Your task to perform on an android device: turn on sleep mode Image 0: 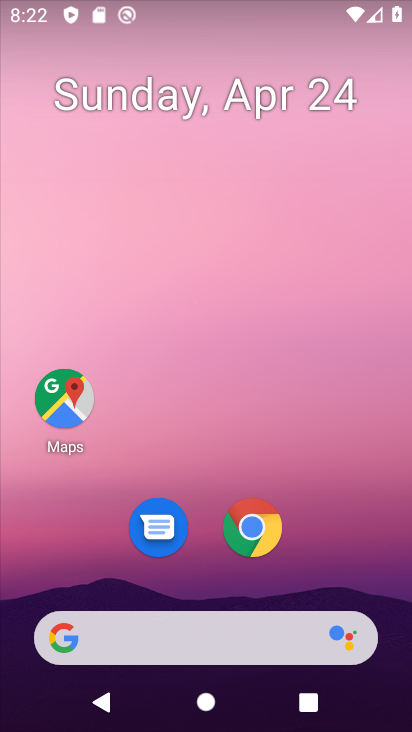
Step 0: drag from (314, 490) to (299, 29)
Your task to perform on an android device: turn on sleep mode Image 1: 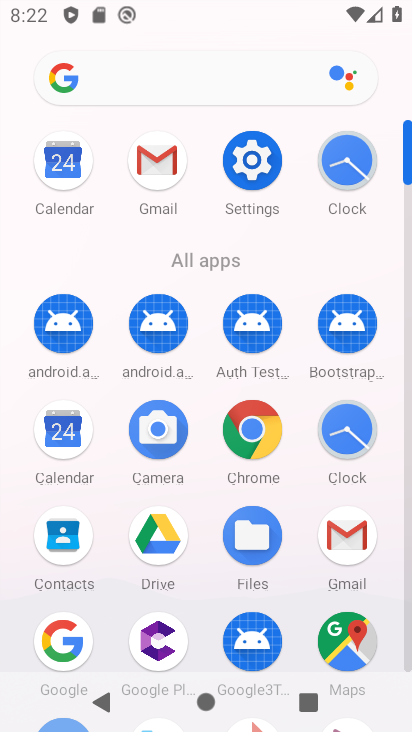
Step 1: click (250, 156)
Your task to perform on an android device: turn on sleep mode Image 2: 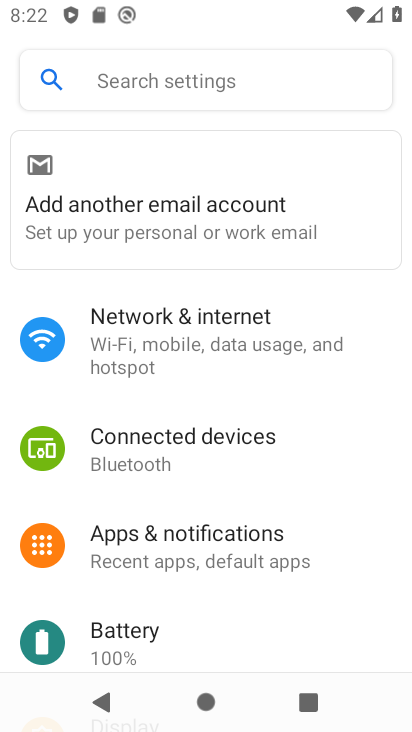
Step 2: drag from (231, 584) to (270, 206)
Your task to perform on an android device: turn on sleep mode Image 3: 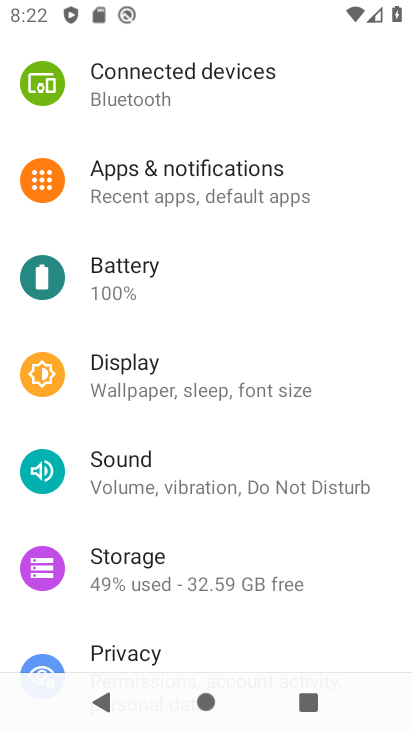
Step 3: click (246, 383)
Your task to perform on an android device: turn on sleep mode Image 4: 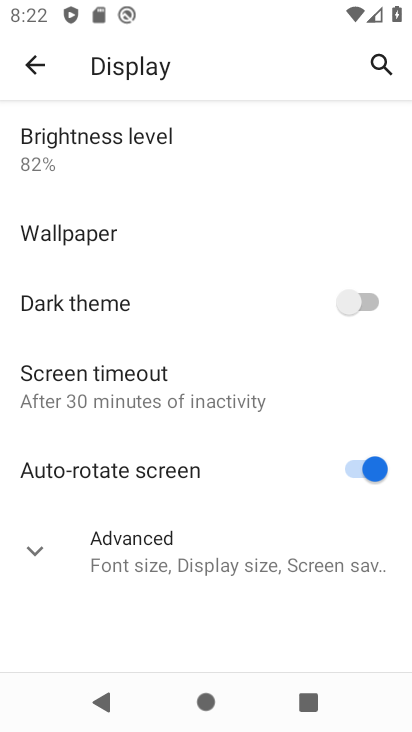
Step 4: click (234, 562)
Your task to perform on an android device: turn on sleep mode Image 5: 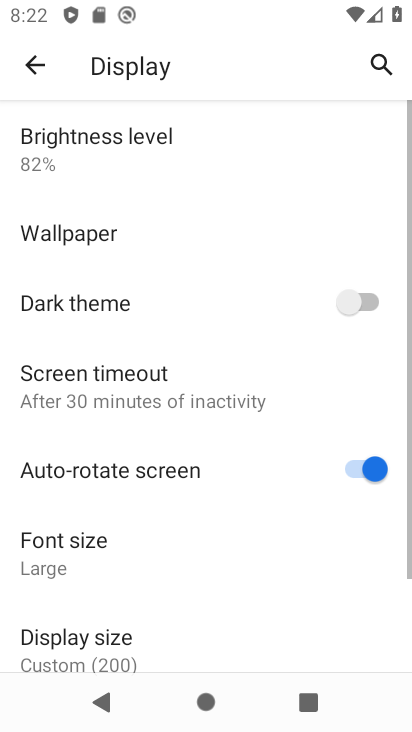
Step 5: task complete